Your task to perform on an android device: Open Google Chrome Image 0: 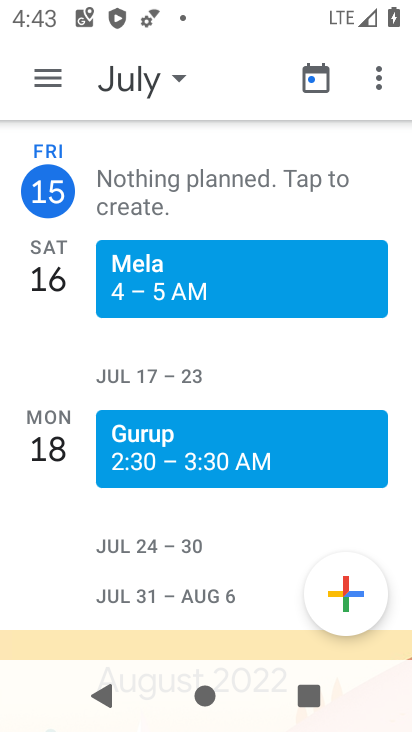
Step 0: press home button
Your task to perform on an android device: Open Google Chrome Image 1: 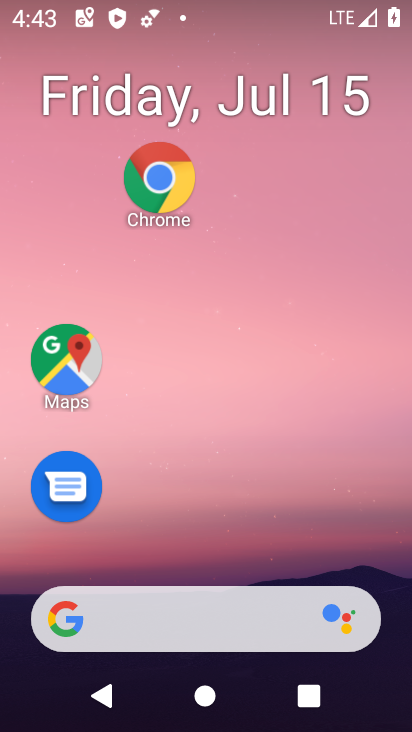
Step 1: click (159, 178)
Your task to perform on an android device: Open Google Chrome Image 2: 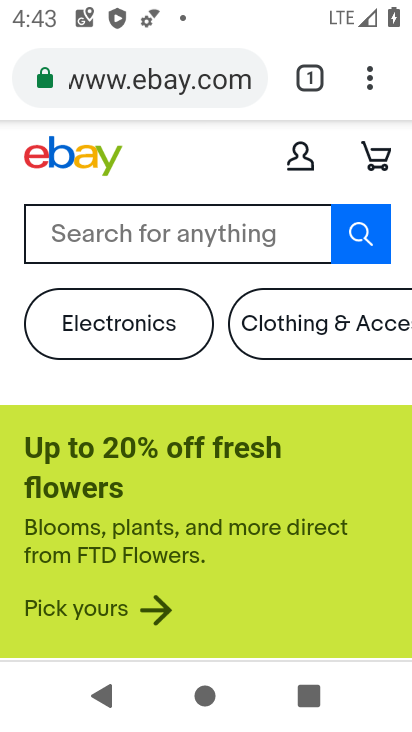
Step 2: task complete